Your task to perform on an android device: Open Google Maps Image 0: 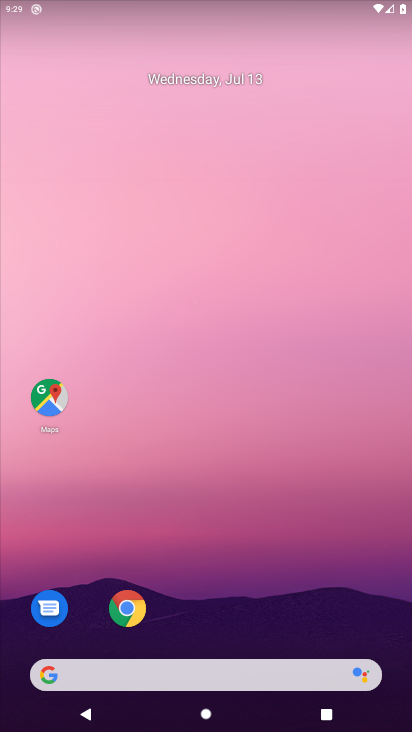
Step 0: click (45, 402)
Your task to perform on an android device: Open Google Maps Image 1: 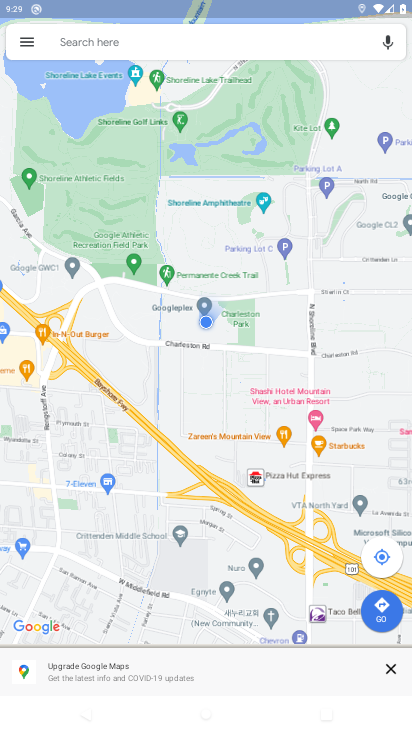
Step 1: task complete